Your task to perform on an android device: turn off wifi Image 0: 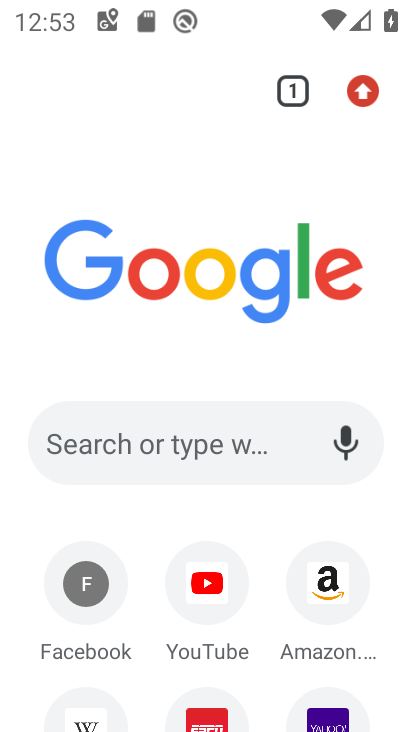
Step 0: press back button
Your task to perform on an android device: turn off wifi Image 1: 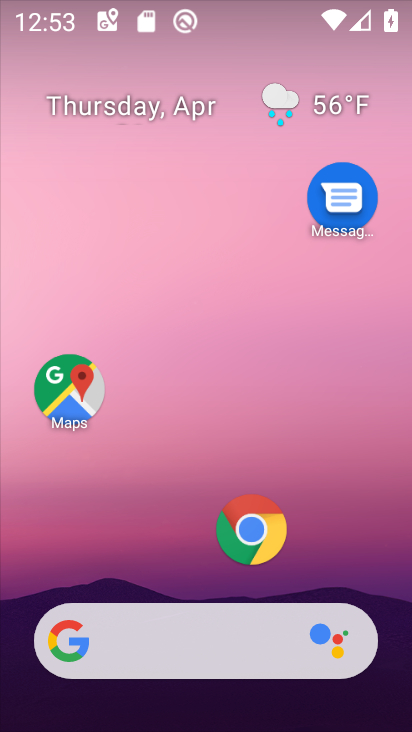
Step 1: drag from (110, 570) to (211, 67)
Your task to perform on an android device: turn off wifi Image 2: 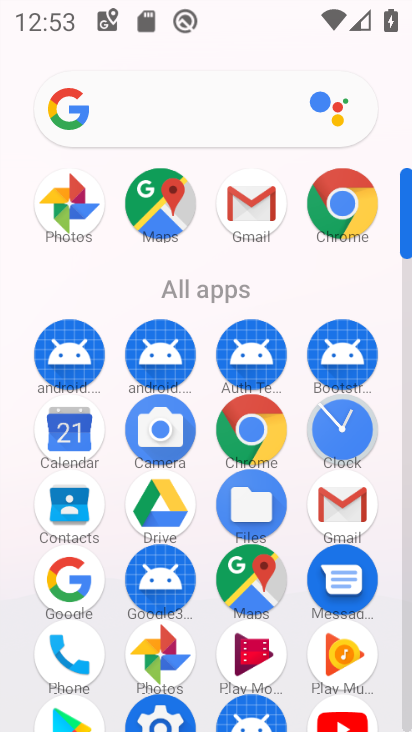
Step 2: click (162, 718)
Your task to perform on an android device: turn off wifi Image 3: 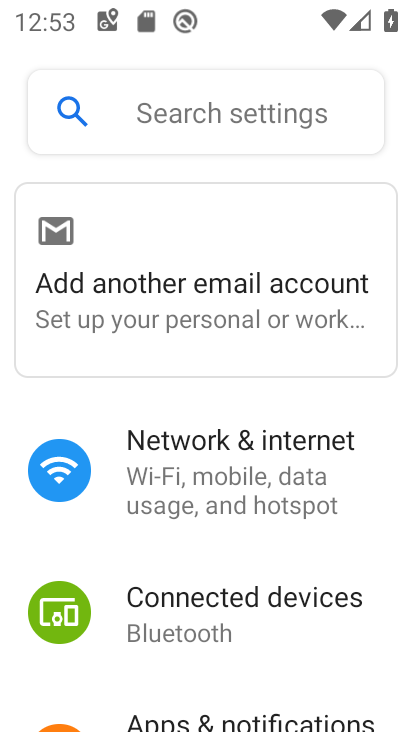
Step 3: click (264, 482)
Your task to perform on an android device: turn off wifi Image 4: 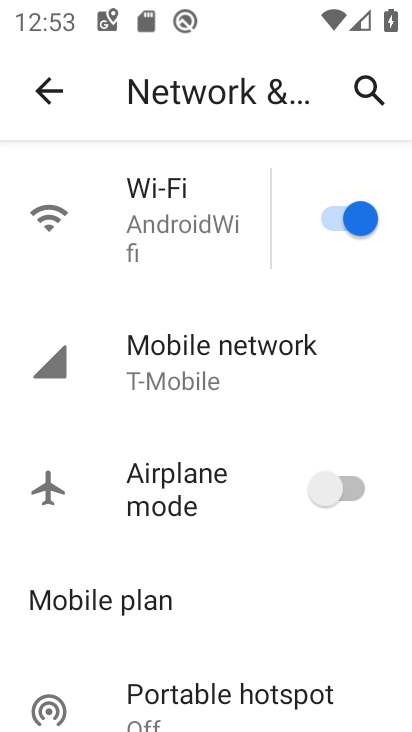
Step 4: click (337, 205)
Your task to perform on an android device: turn off wifi Image 5: 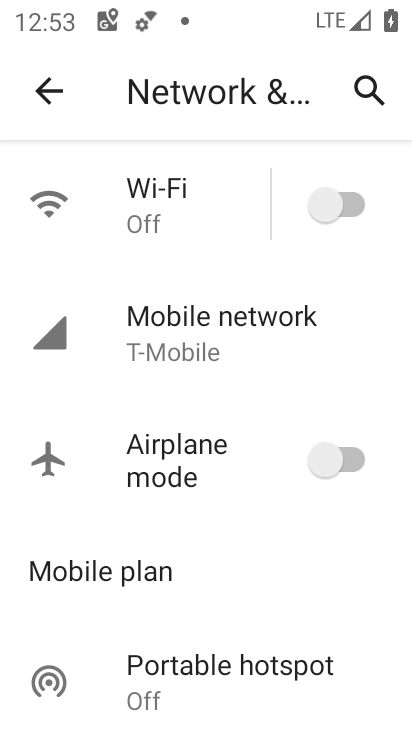
Step 5: task complete